Your task to perform on an android device: Go to battery settings Image 0: 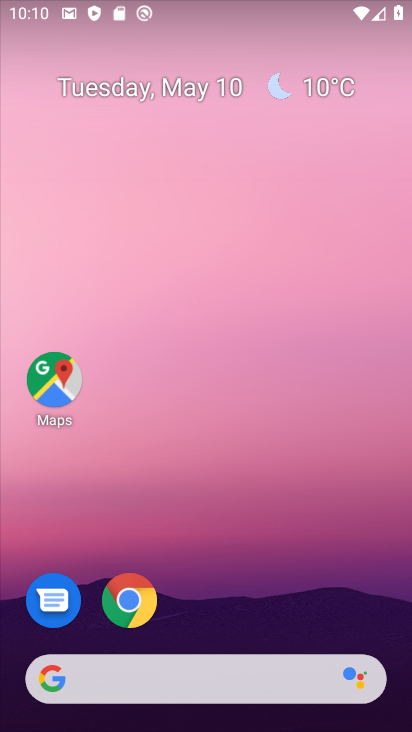
Step 0: drag from (255, 580) to (201, 88)
Your task to perform on an android device: Go to battery settings Image 1: 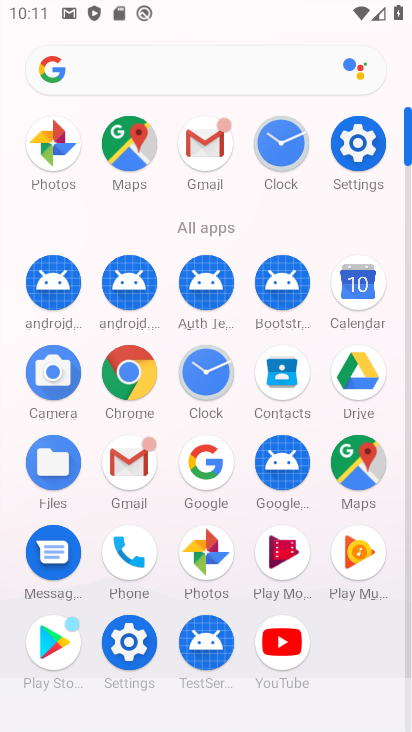
Step 1: click (367, 151)
Your task to perform on an android device: Go to battery settings Image 2: 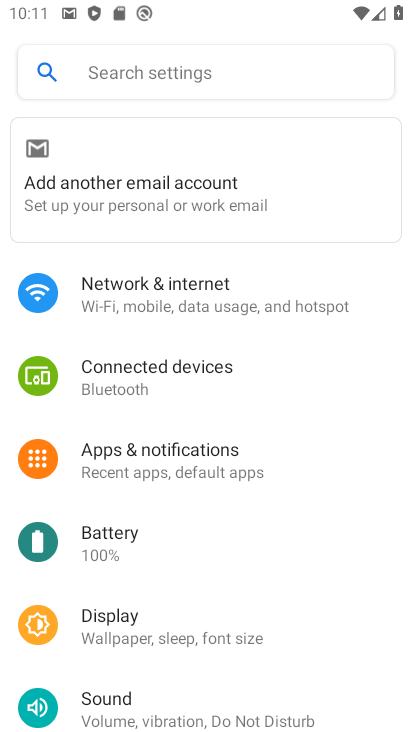
Step 2: click (180, 531)
Your task to perform on an android device: Go to battery settings Image 3: 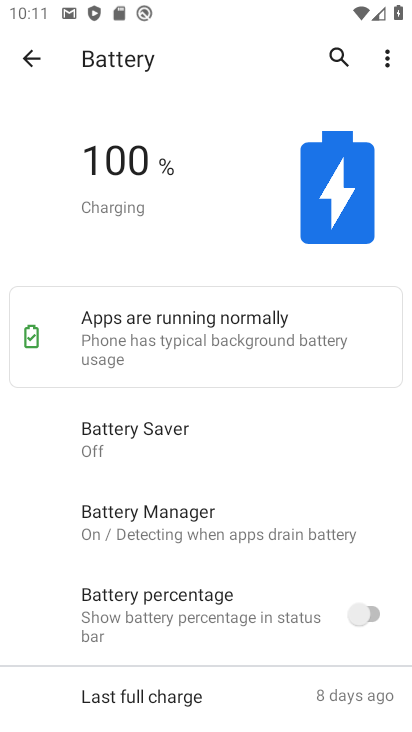
Step 3: task complete